Your task to perform on an android device: allow cookies in the chrome app Image 0: 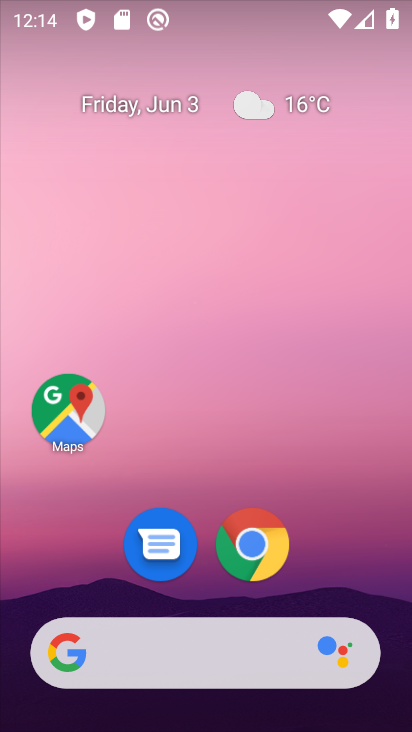
Step 0: drag from (353, 569) to (334, 46)
Your task to perform on an android device: allow cookies in the chrome app Image 1: 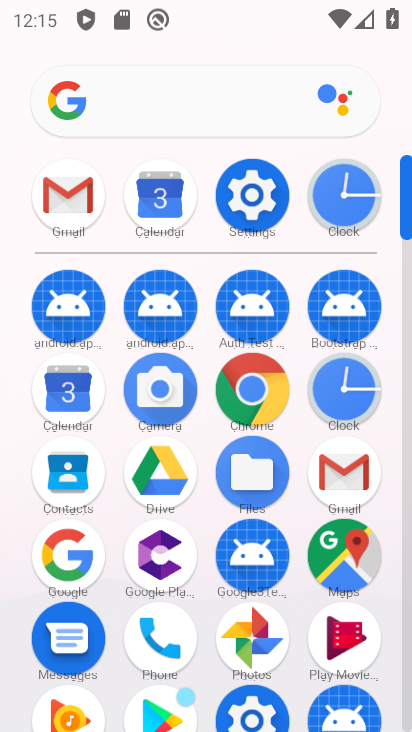
Step 1: click (257, 393)
Your task to perform on an android device: allow cookies in the chrome app Image 2: 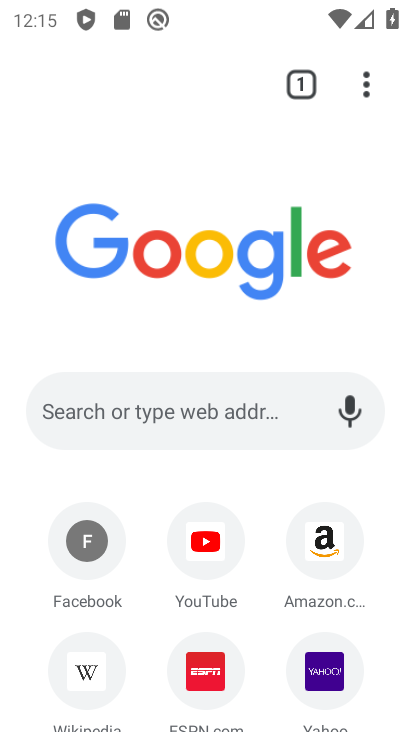
Step 2: drag from (354, 97) to (211, 590)
Your task to perform on an android device: allow cookies in the chrome app Image 3: 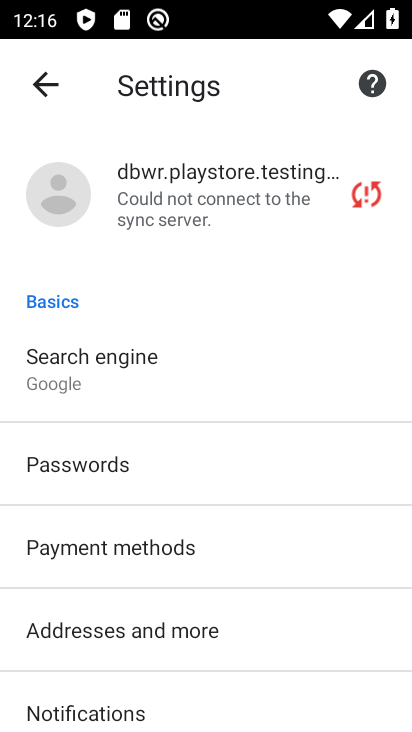
Step 3: drag from (235, 571) to (208, 263)
Your task to perform on an android device: allow cookies in the chrome app Image 4: 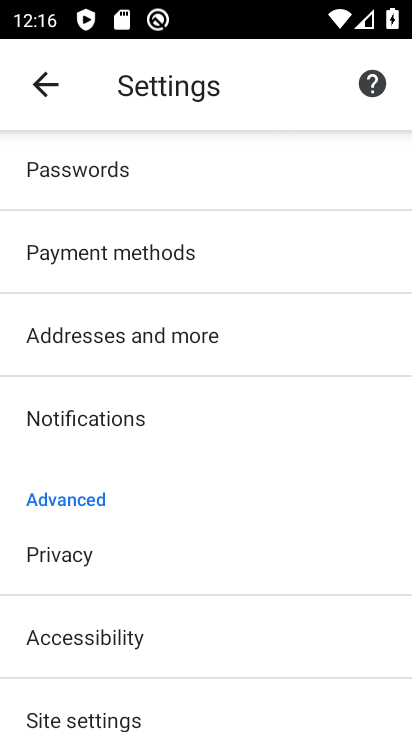
Step 4: drag from (175, 637) to (212, 418)
Your task to perform on an android device: allow cookies in the chrome app Image 5: 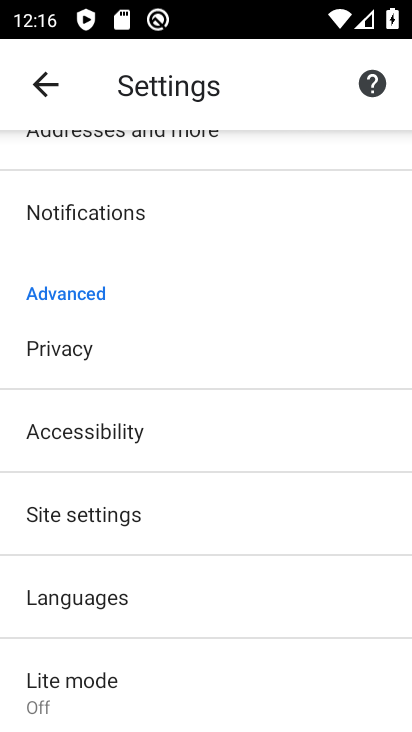
Step 5: click (175, 520)
Your task to perform on an android device: allow cookies in the chrome app Image 6: 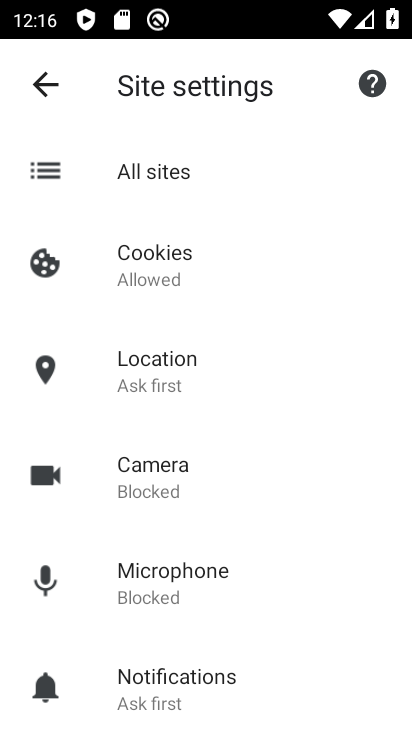
Step 6: click (211, 251)
Your task to perform on an android device: allow cookies in the chrome app Image 7: 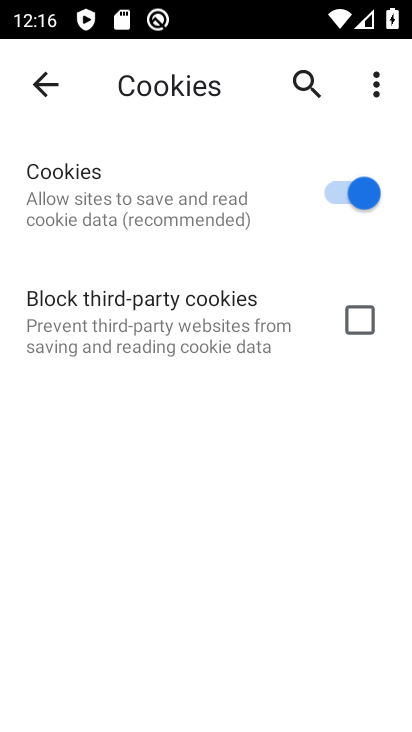
Step 7: task complete